Your task to perform on an android device: change your default location settings in chrome Image 0: 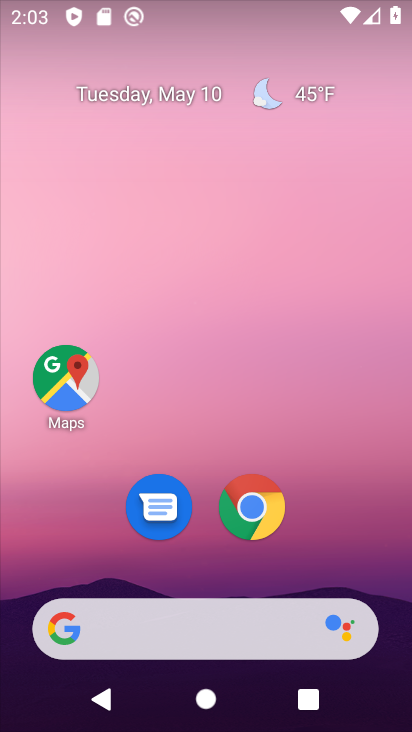
Step 0: click (267, 514)
Your task to perform on an android device: change your default location settings in chrome Image 1: 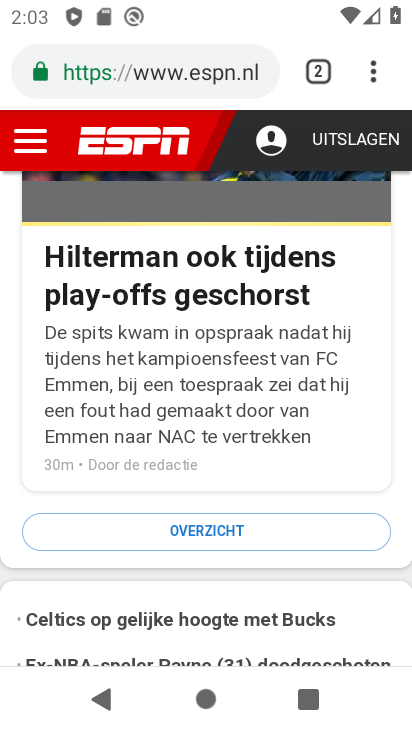
Step 1: drag from (369, 74) to (146, 504)
Your task to perform on an android device: change your default location settings in chrome Image 2: 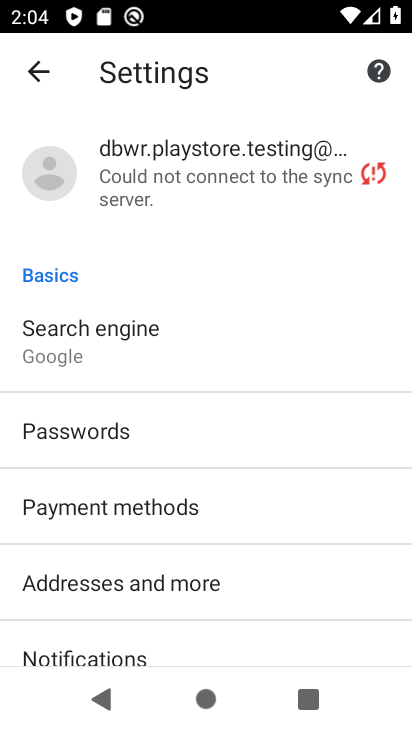
Step 2: drag from (145, 642) to (177, 298)
Your task to perform on an android device: change your default location settings in chrome Image 3: 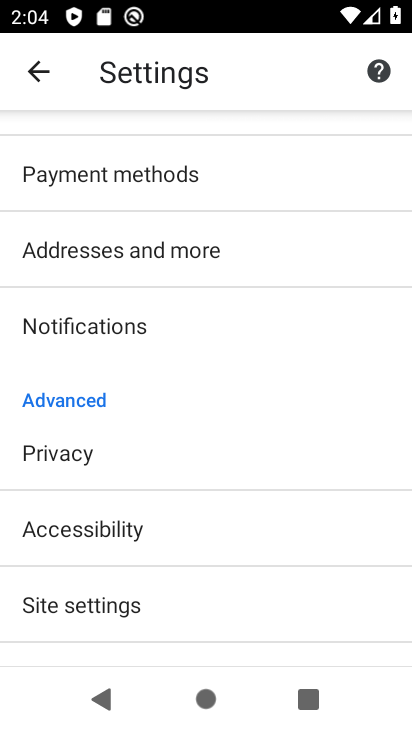
Step 3: drag from (177, 471) to (174, 328)
Your task to perform on an android device: change your default location settings in chrome Image 4: 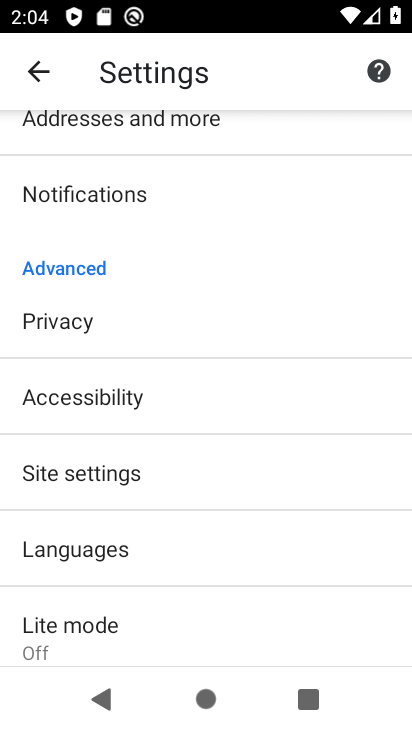
Step 4: click (57, 463)
Your task to perform on an android device: change your default location settings in chrome Image 5: 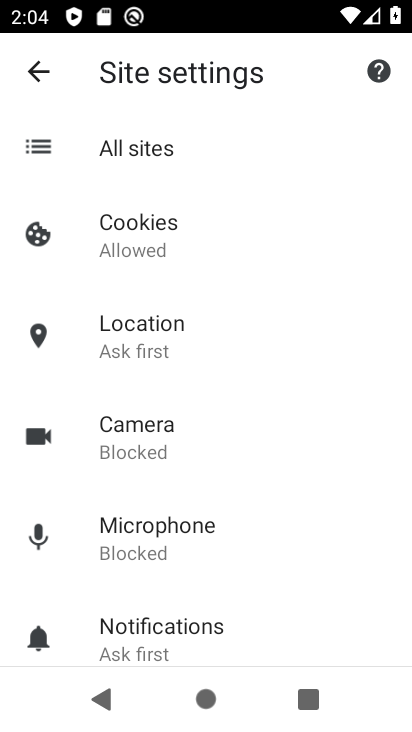
Step 5: click (138, 327)
Your task to perform on an android device: change your default location settings in chrome Image 6: 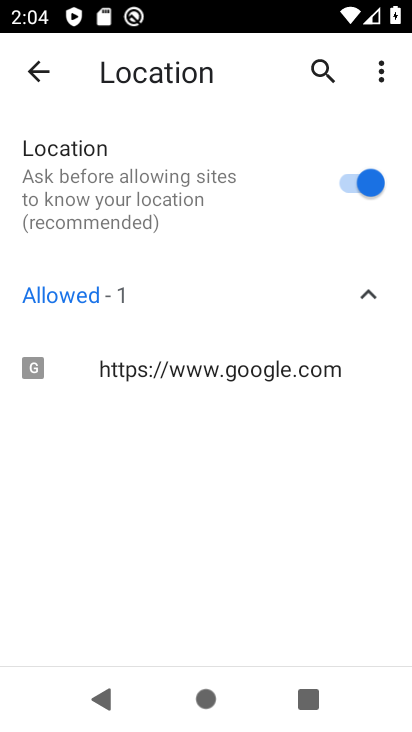
Step 6: task complete